Your task to perform on an android device: open app "Microsoft Excel" Image 0: 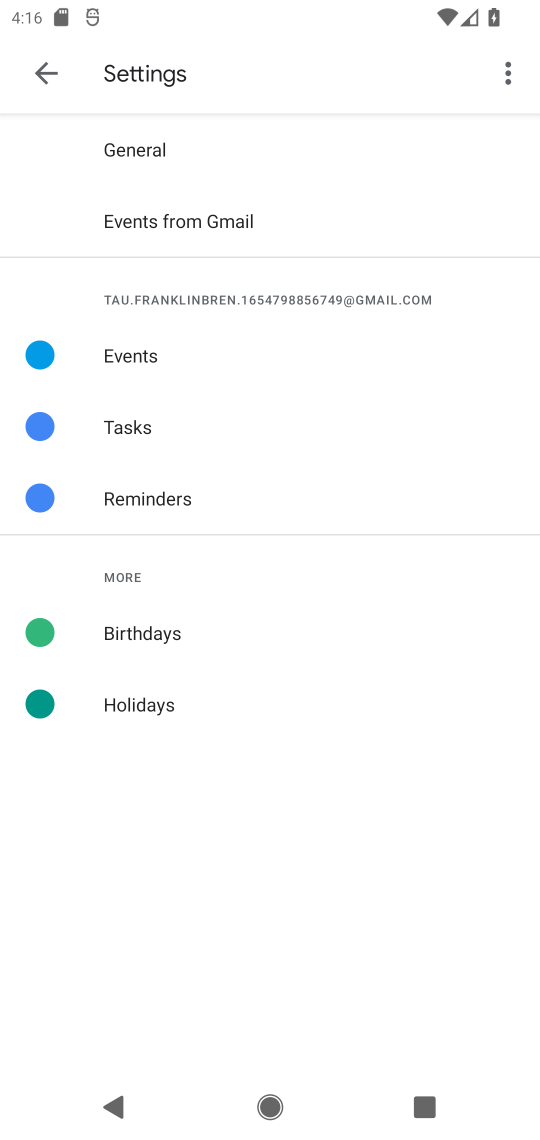
Step 0: press home button
Your task to perform on an android device: open app "Microsoft Excel" Image 1: 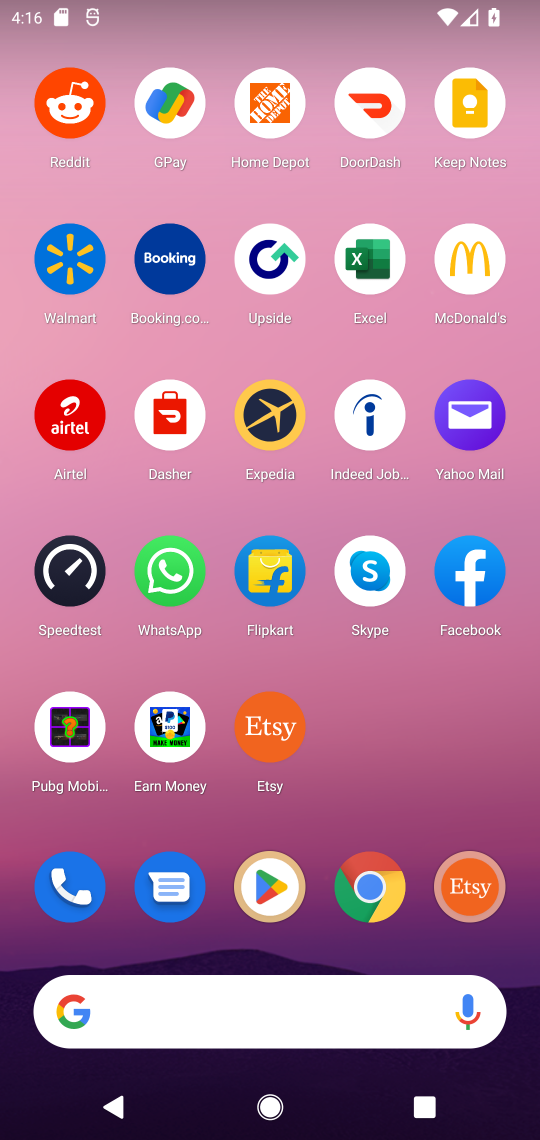
Step 1: click (262, 879)
Your task to perform on an android device: open app "Microsoft Excel" Image 2: 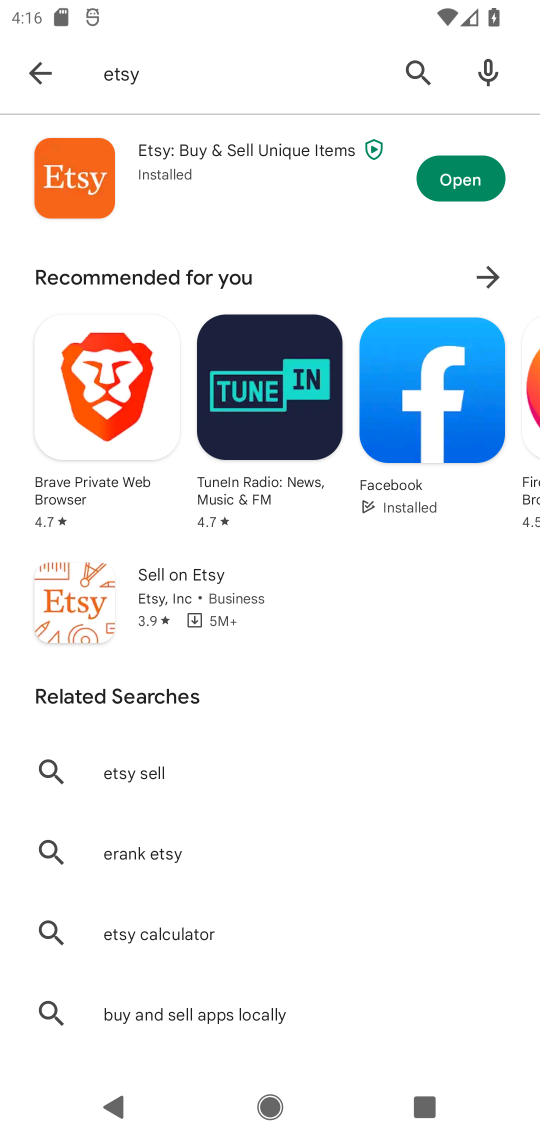
Step 2: click (36, 70)
Your task to perform on an android device: open app "Microsoft Excel" Image 3: 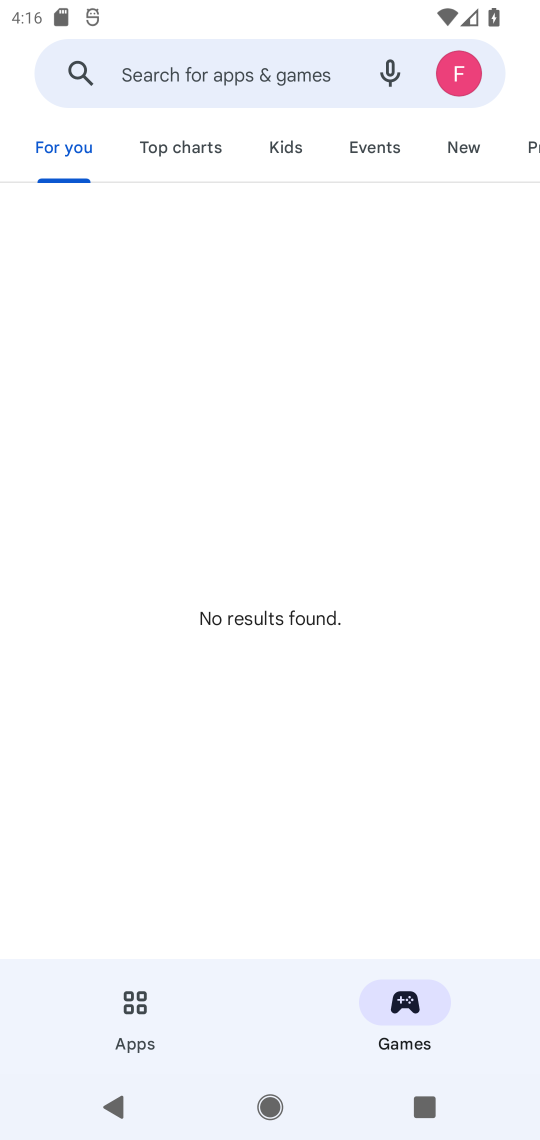
Step 3: click (185, 67)
Your task to perform on an android device: open app "Microsoft Excel" Image 4: 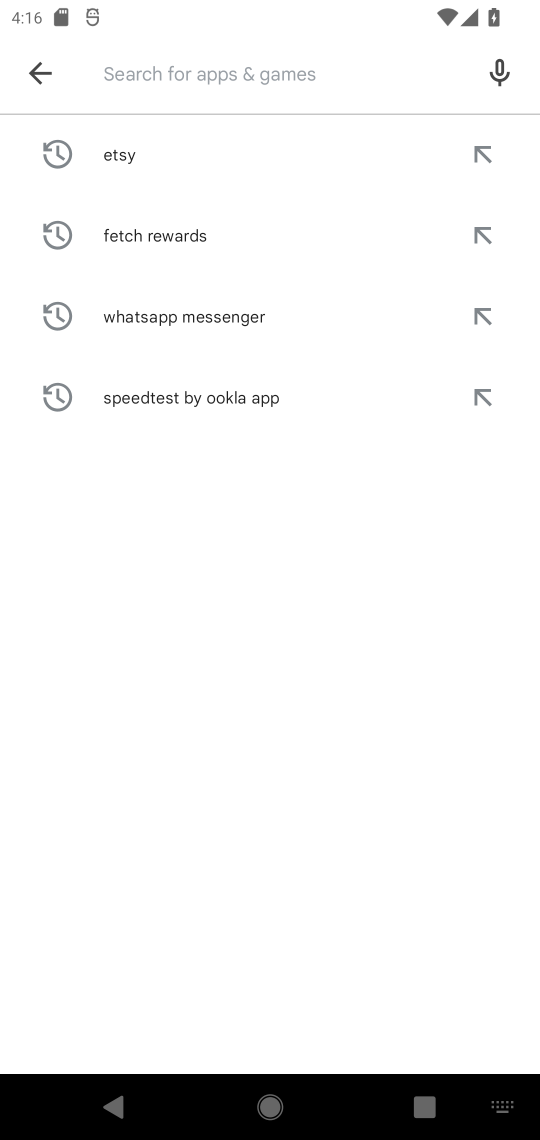
Step 4: type "Microsoft Excel"
Your task to perform on an android device: open app "Microsoft Excel" Image 5: 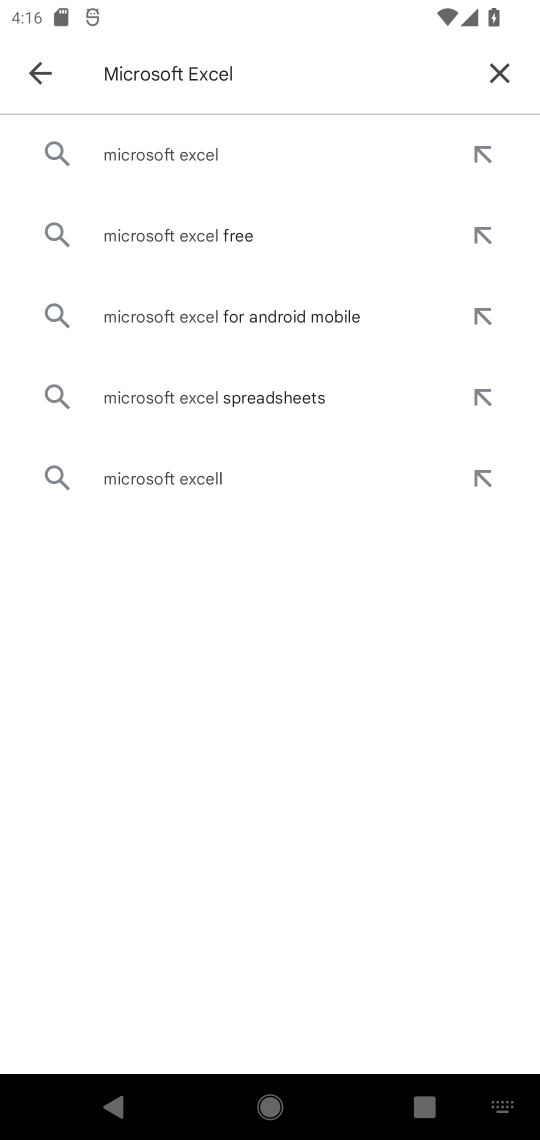
Step 5: click (199, 158)
Your task to perform on an android device: open app "Microsoft Excel" Image 6: 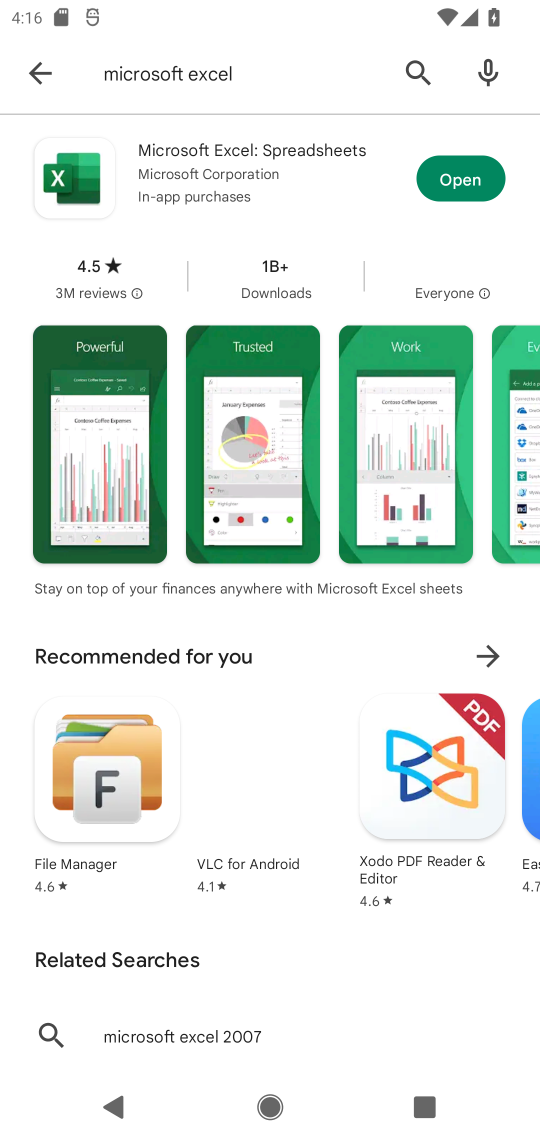
Step 6: click (457, 189)
Your task to perform on an android device: open app "Microsoft Excel" Image 7: 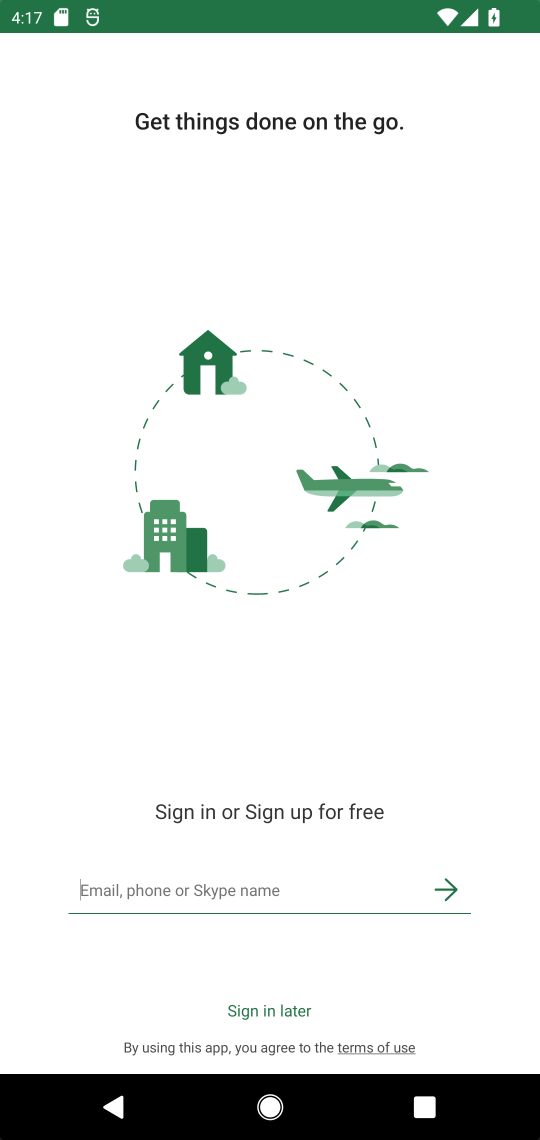
Step 7: task complete